Your task to perform on an android device: toggle pop-ups in chrome Image 0: 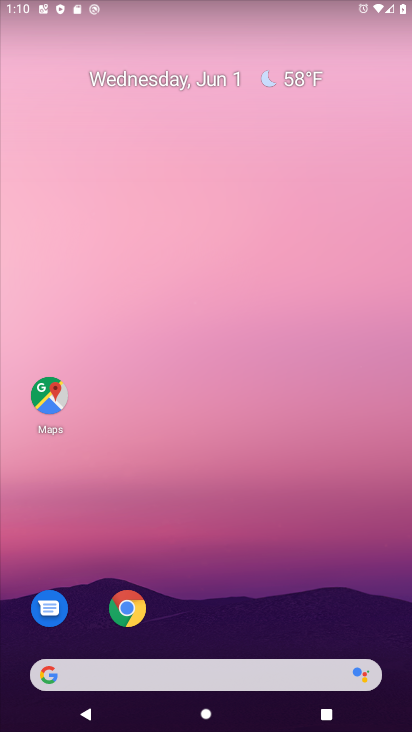
Step 0: click (139, 604)
Your task to perform on an android device: toggle pop-ups in chrome Image 1: 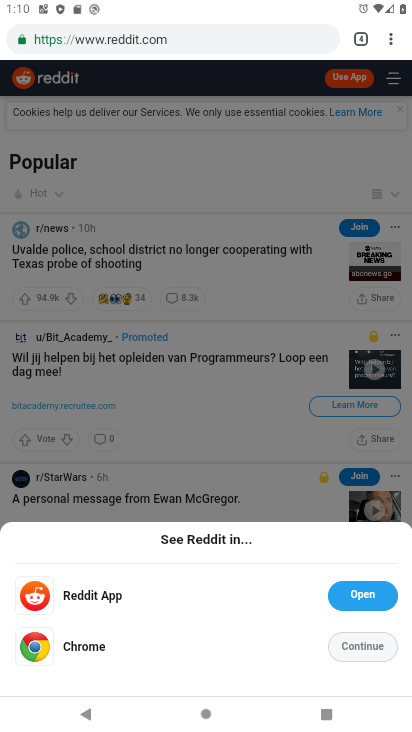
Step 1: click (390, 37)
Your task to perform on an android device: toggle pop-ups in chrome Image 2: 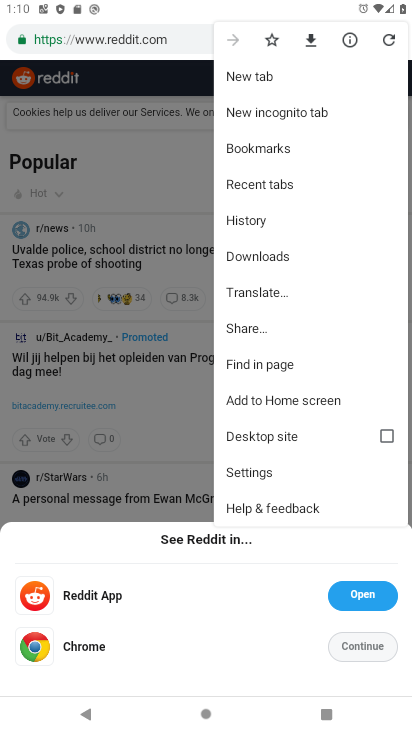
Step 2: click (242, 459)
Your task to perform on an android device: toggle pop-ups in chrome Image 3: 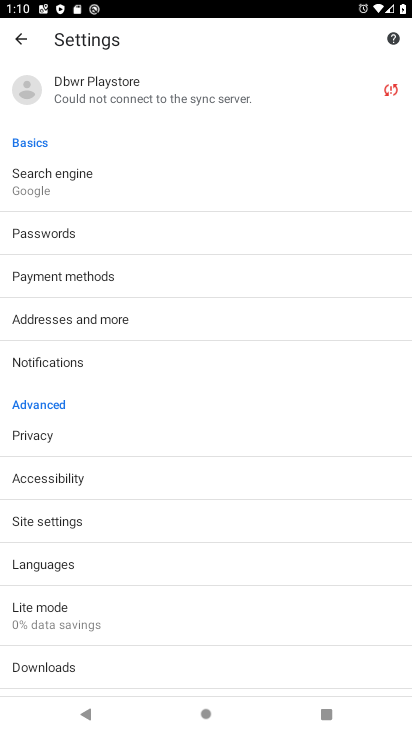
Step 3: drag from (176, 539) to (243, 203)
Your task to perform on an android device: toggle pop-ups in chrome Image 4: 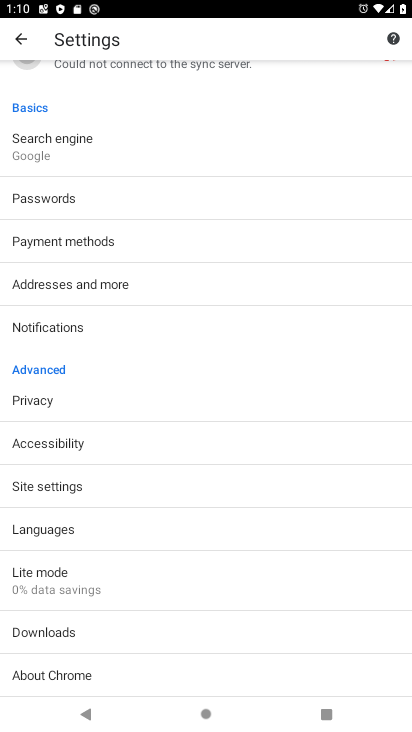
Step 4: click (111, 478)
Your task to perform on an android device: toggle pop-ups in chrome Image 5: 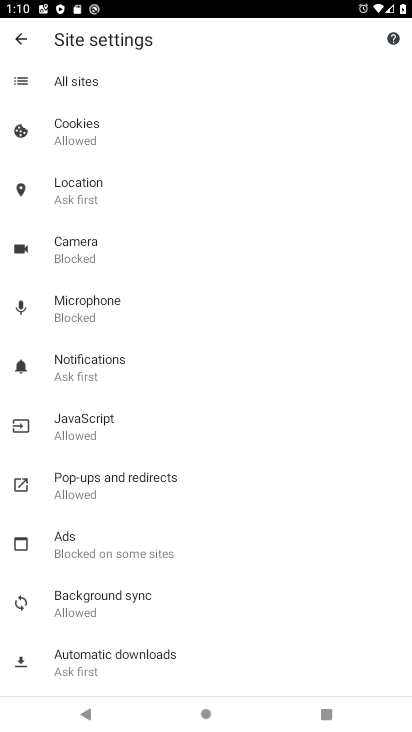
Step 5: click (124, 466)
Your task to perform on an android device: toggle pop-ups in chrome Image 6: 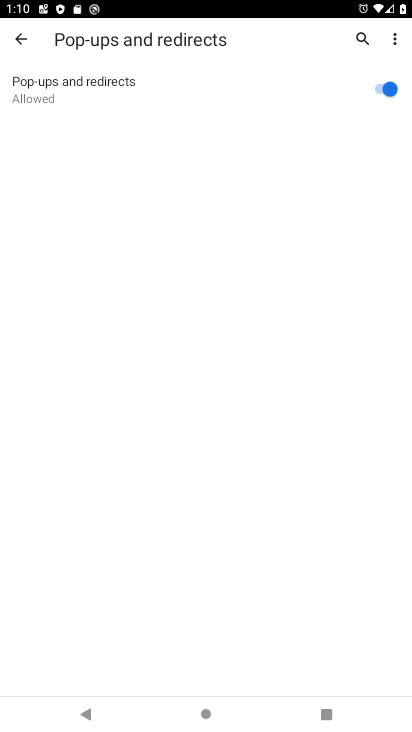
Step 6: click (383, 71)
Your task to perform on an android device: toggle pop-ups in chrome Image 7: 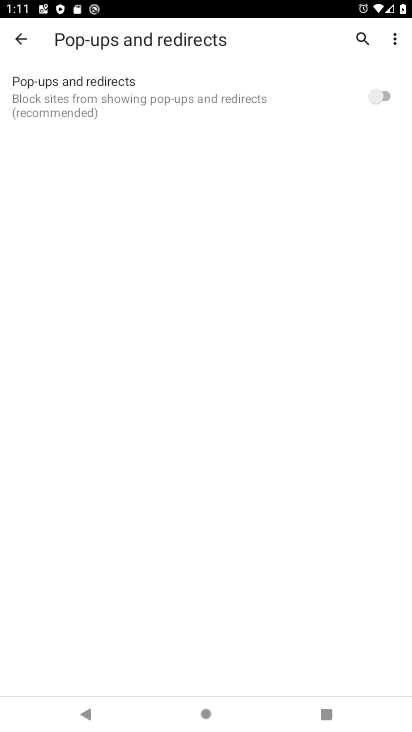
Step 7: click (373, 89)
Your task to perform on an android device: toggle pop-ups in chrome Image 8: 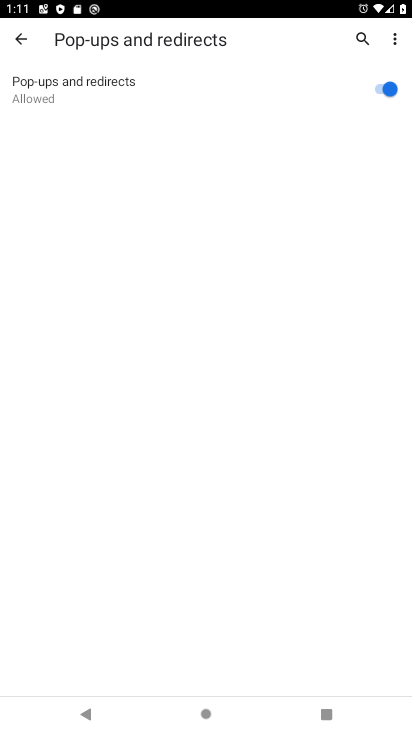
Step 8: task complete